Your task to perform on an android device: turn vacation reply on in the gmail app Image 0: 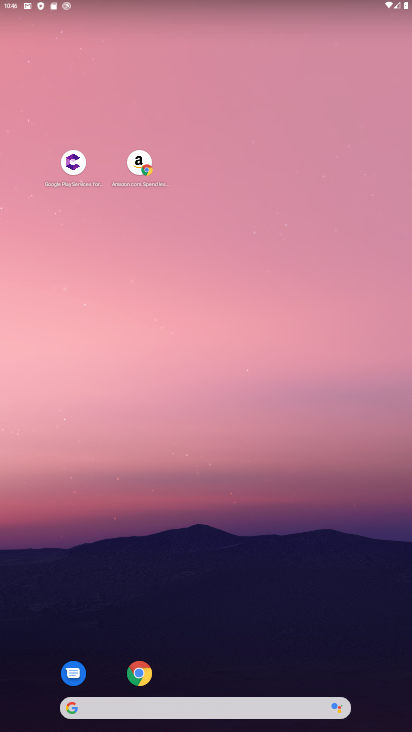
Step 0: drag from (309, 587) to (294, 2)
Your task to perform on an android device: turn vacation reply on in the gmail app Image 1: 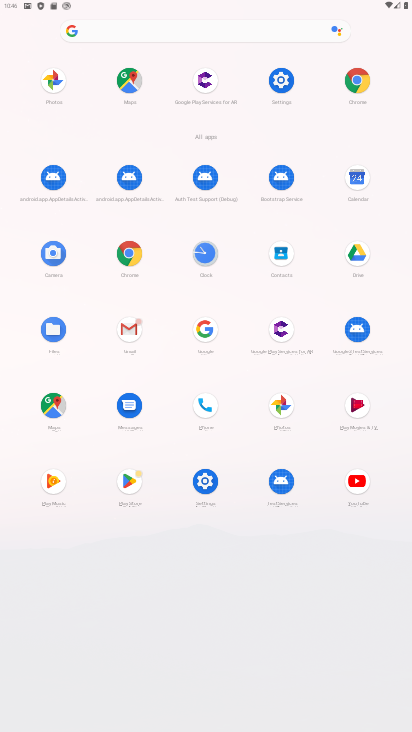
Step 1: click (127, 327)
Your task to perform on an android device: turn vacation reply on in the gmail app Image 2: 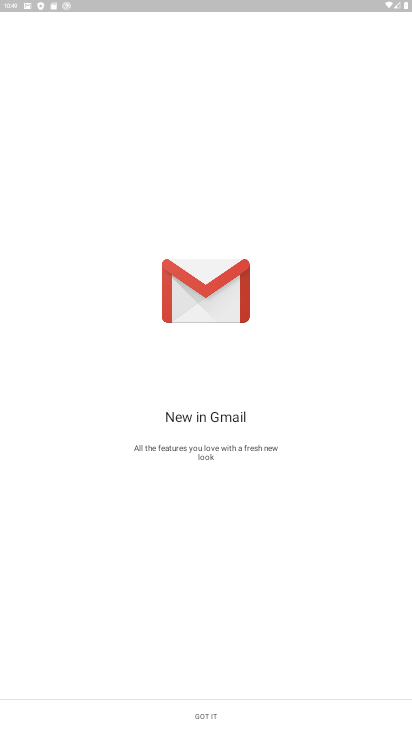
Step 2: click (204, 713)
Your task to perform on an android device: turn vacation reply on in the gmail app Image 3: 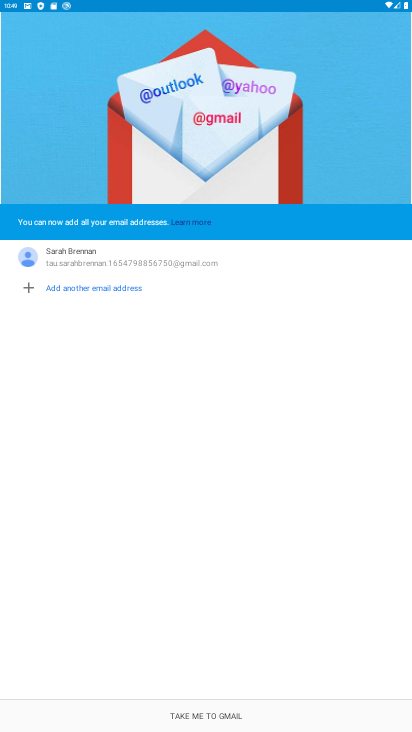
Step 3: click (181, 721)
Your task to perform on an android device: turn vacation reply on in the gmail app Image 4: 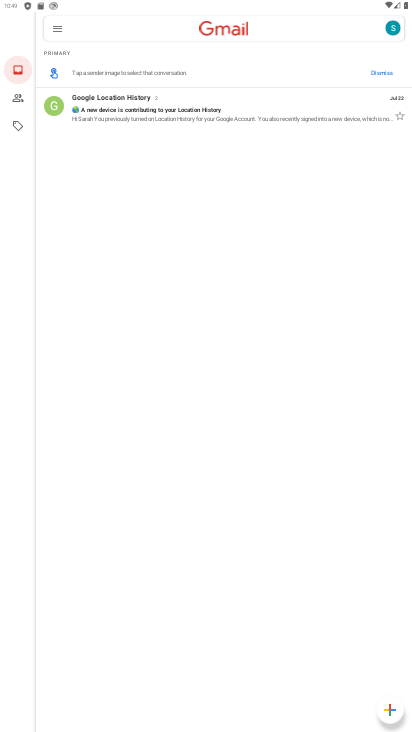
Step 4: click (51, 32)
Your task to perform on an android device: turn vacation reply on in the gmail app Image 5: 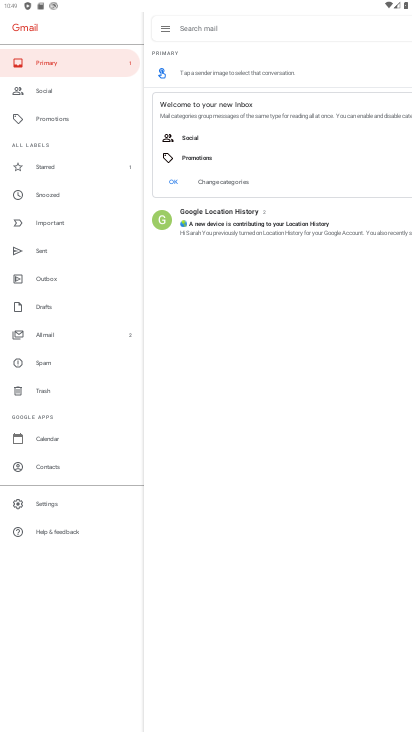
Step 5: click (51, 502)
Your task to perform on an android device: turn vacation reply on in the gmail app Image 6: 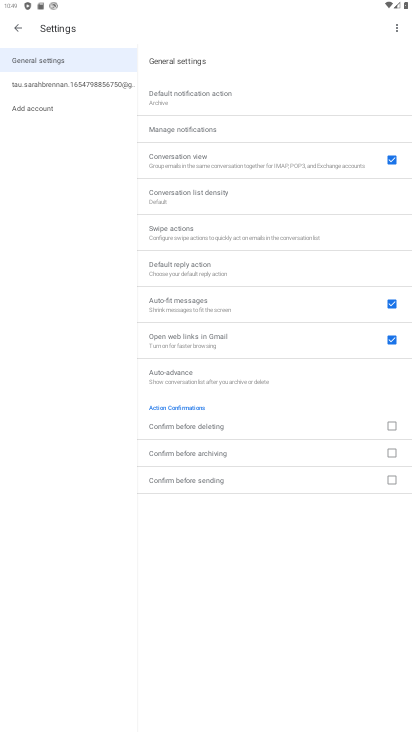
Step 6: click (57, 75)
Your task to perform on an android device: turn vacation reply on in the gmail app Image 7: 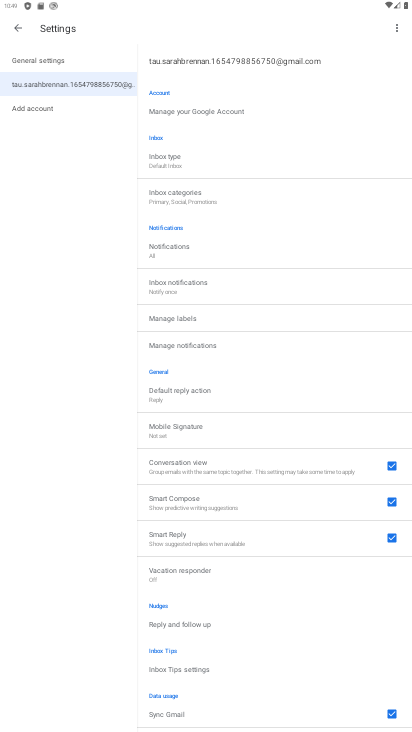
Step 7: click (195, 579)
Your task to perform on an android device: turn vacation reply on in the gmail app Image 8: 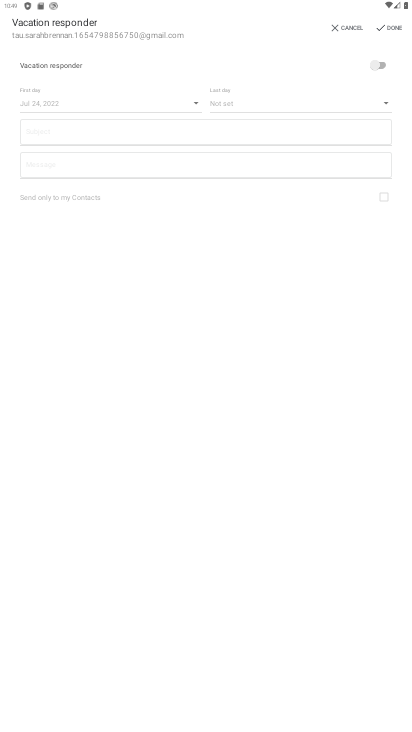
Step 8: click (381, 66)
Your task to perform on an android device: turn vacation reply on in the gmail app Image 9: 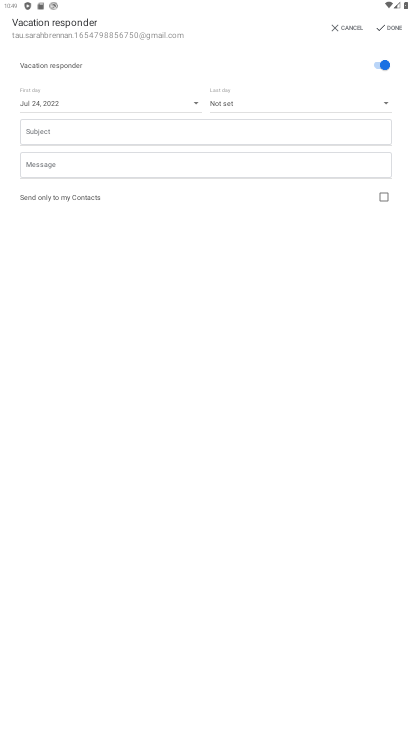
Step 9: task complete